Your task to perform on an android device: Go to display settings Image 0: 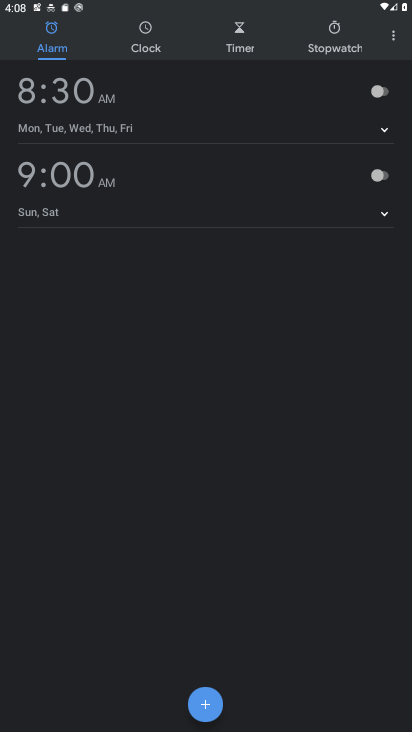
Step 0: press home button
Your task to perform on an android device: Go to display settings Image 1: 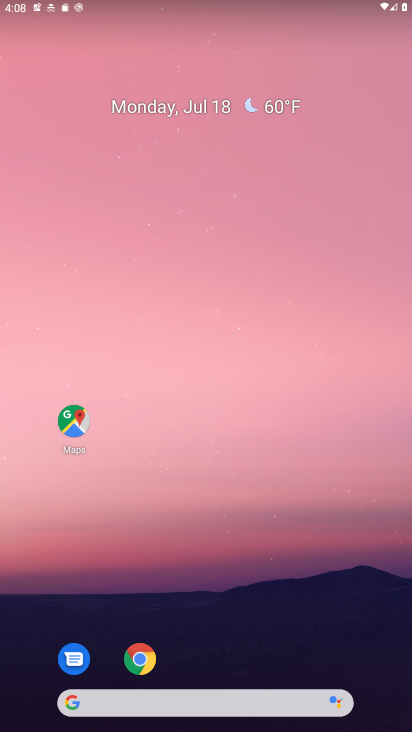
Step 1: drag from (282, 700) to (391, 1)
Your task to perform on an android device: Go to display settings Image 2: 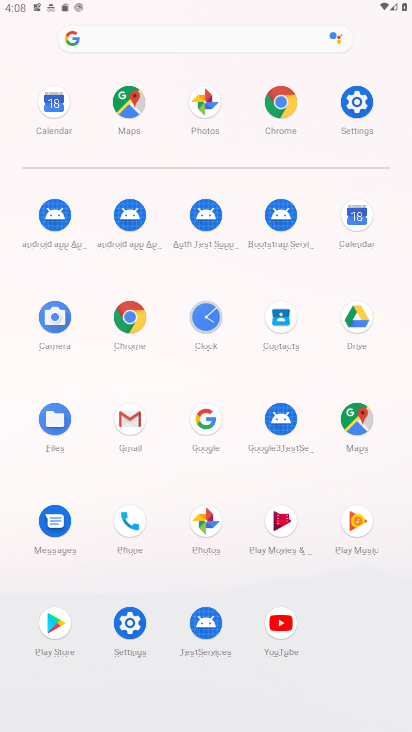
Step 2: click (355, 102)
Your task to perform on an android device: Go to display settings Image 3: 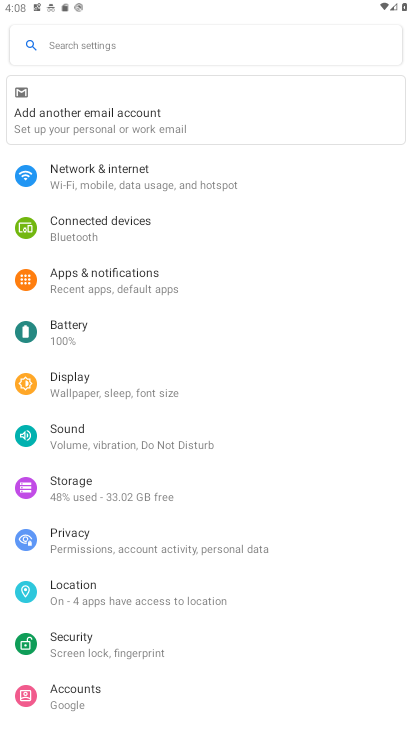
Step 3: click (173, 392)
Your task to perform on an android device: Go to display settings Image 4: 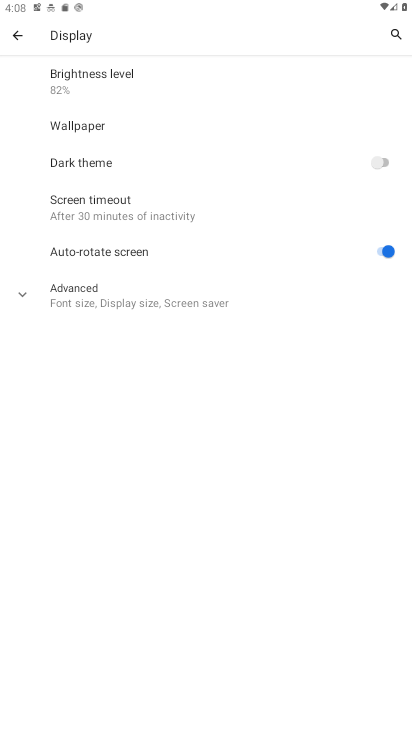
Step 4: task complete